Your task to perform on an android device: change notification settings in the gmail app Image 0: 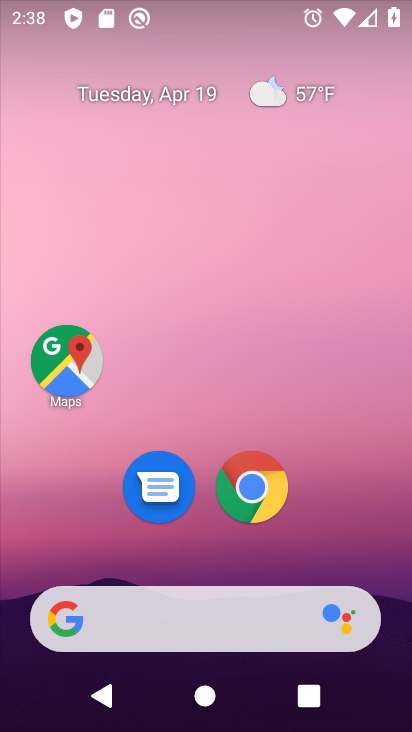
Step 0: drag from (349, 520) to (275, 94)
Your task to perform on an android device: change notification settings in the gmail app Image 1: 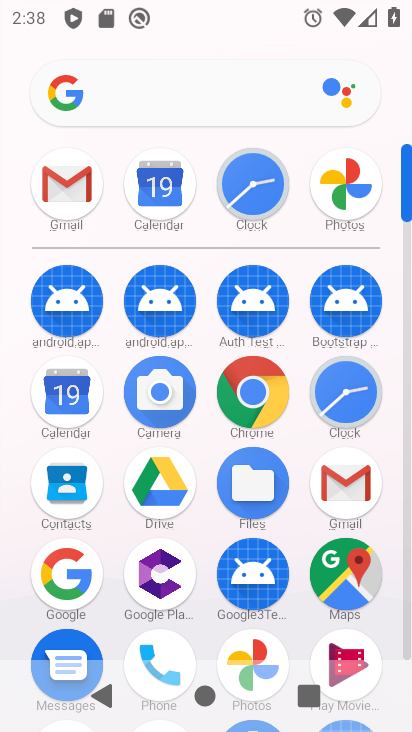
Step 1: click (338, 483)
Your task to perform on an android device: change notification settings in the gmail app Image 2: 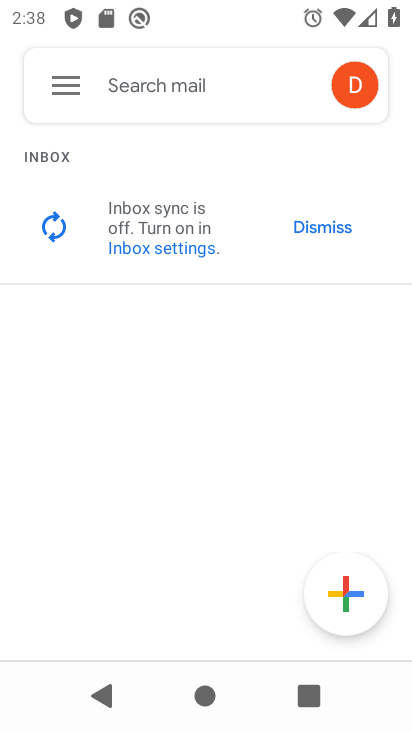
Step 2: click (68, 83)
Your task to perform on an android device: change notification settings in the gmail app Image 3: 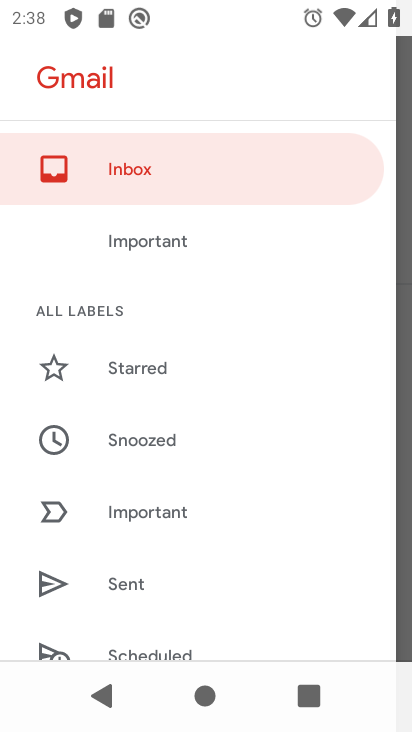
Step 3: drag from (282, 585) to (289, 285)
Your task to perform on an android device: change notification settings in the gmail app Image 4: 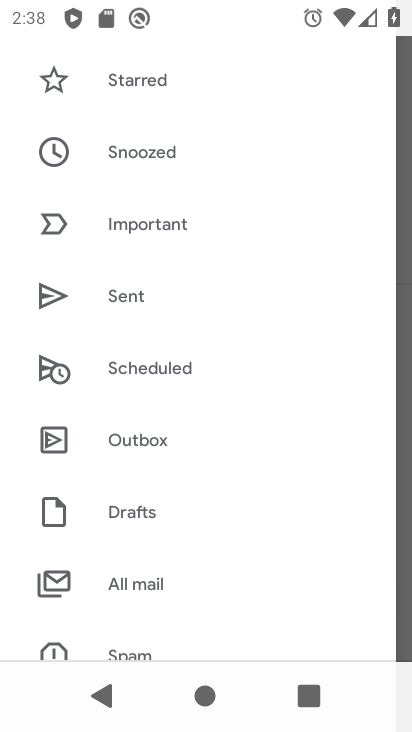
Step 4: drag from (270, 578) to (263, 259)
Your task to perform on an android device: change notification settings in the gmail app Image 5: 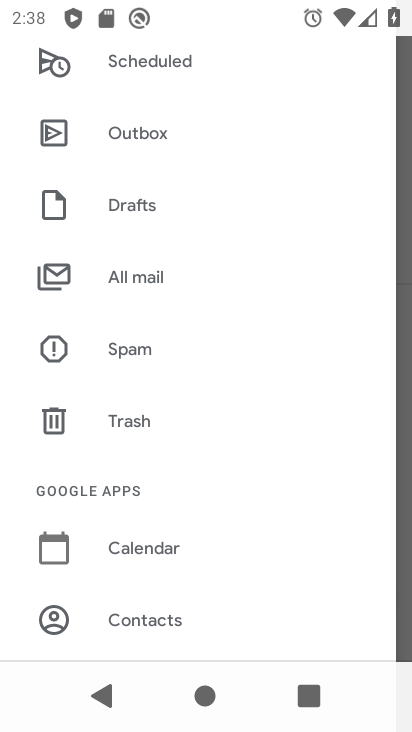
Step 5: drag from (232, 596) to (242, 262)
Your task to perform on an android device: change notification settings in the gmail app Image 6: 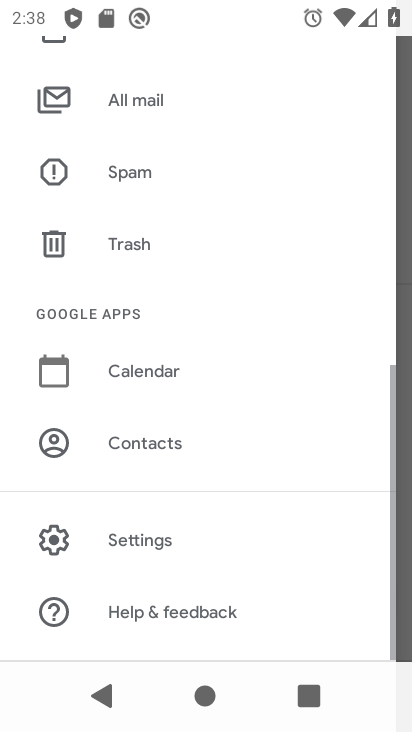
Step 6: click (138, 543)
Your task to perform on an android device: change notification settings in the gmail app Image 7: 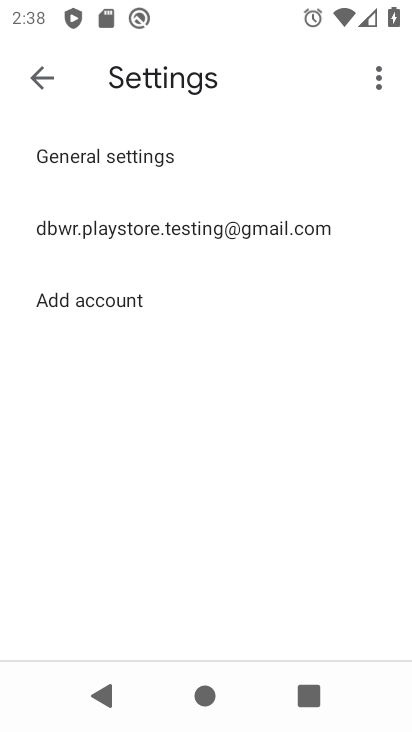
Step 7: click (103, 239)
Your task to perform on an android device: change notification settings in the gmail app Image 8: 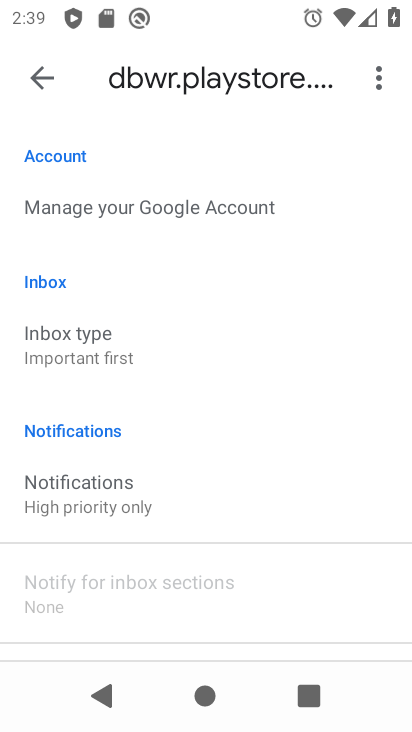
Step 8: click (98, 478)
Your task to perform on an android device: change notification settings in the gmail app Image 9: 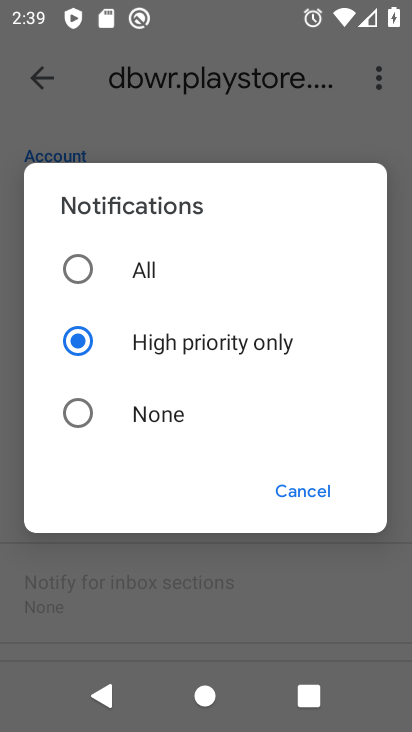
Step 9: click (128, 278)
Your task to perform on an android device: change notification settings in the gmail app Image 10: 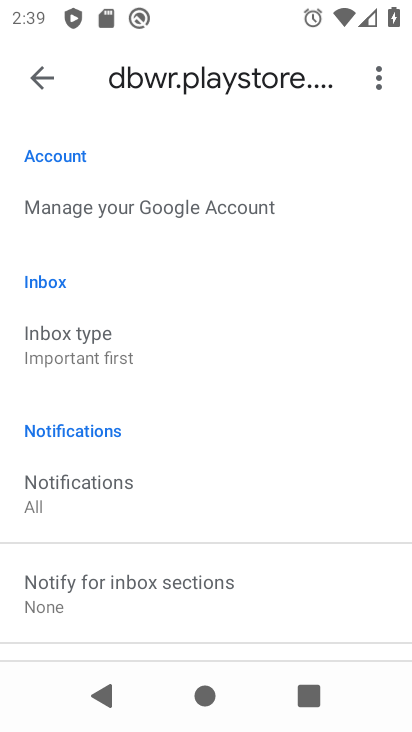
Step 10: task complete